Your task to perform on an android device: turn on sleep mode Image 0: 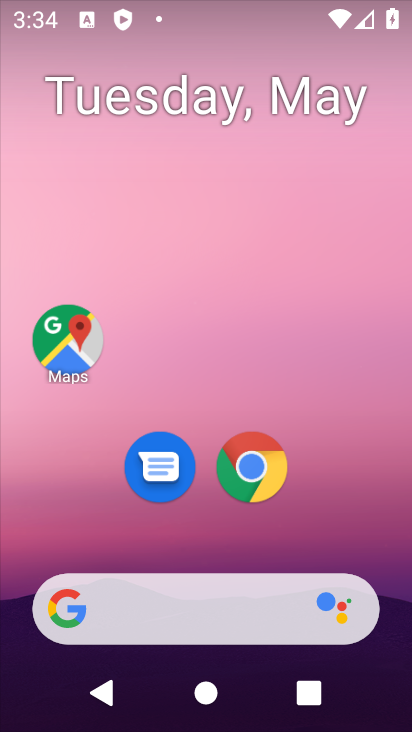
Step 0: drag from (358, 543) to (360, 15)
Your task to perform on an android device: turn on sleep mode Image 1: 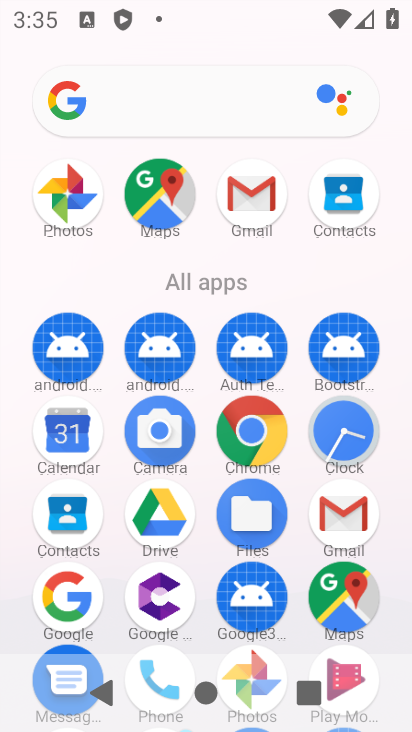
Step 1: task complete